Your task to perform on an android device: turn on sleep mode Image 0: 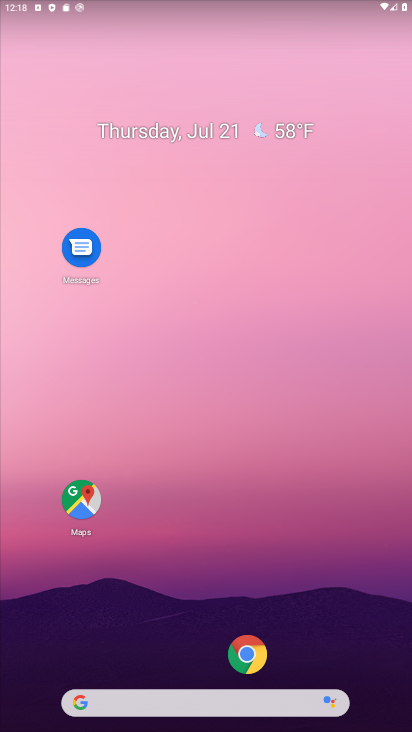
Step 0: press home button
Your task to perform on an android device: turn on sleep mode Image 1: 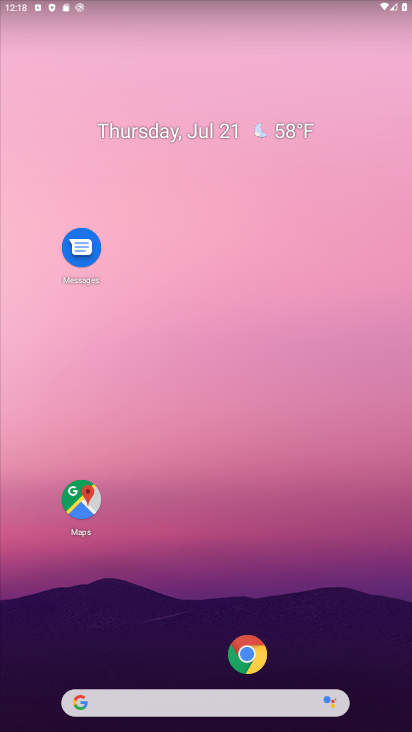
Step 1: drag from (156, 658) to (128, 175)
Your task to perform on an android device: turn on sleep mode Image 2: 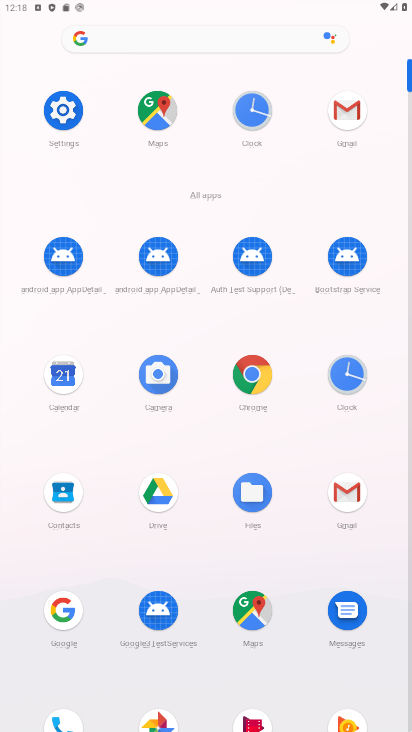
Step 2: click (59, 111)
Your task to perform on an android device: turn on sleep mode Image 3: 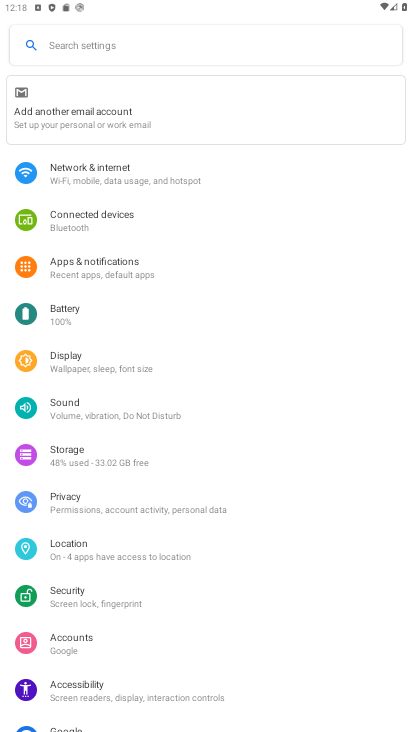
Step 3: task complete